Your task to perform on an android device: Open eBay Image 0: 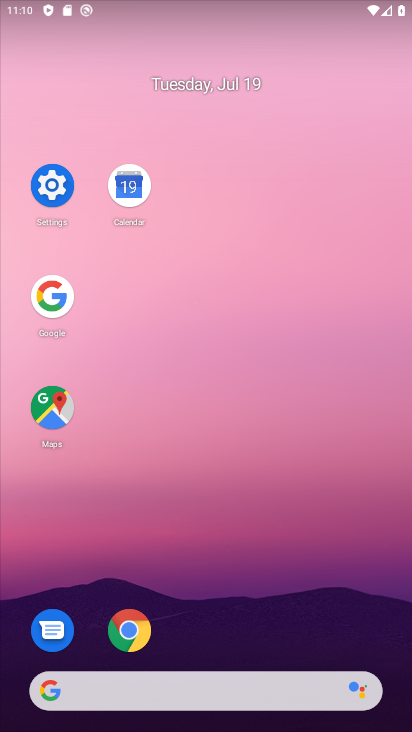
Step 0: click (117, 626)
Your task to perform on an android device: Open eBay Image 1: 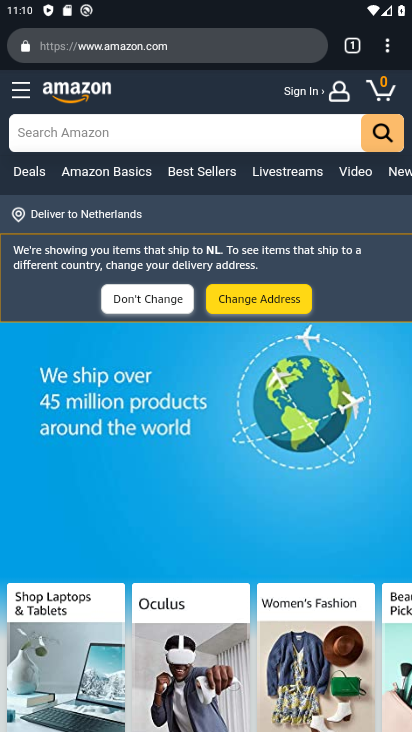
Step 1: click (347, 48)
Your task to perform on an android device: Open eBay Image 2: 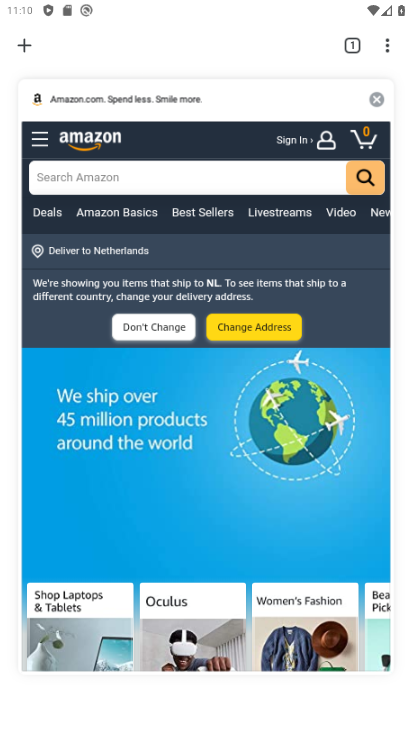
Step 2: click (34, 38)
Your task to perform on an android device: Open eBay Image 3: 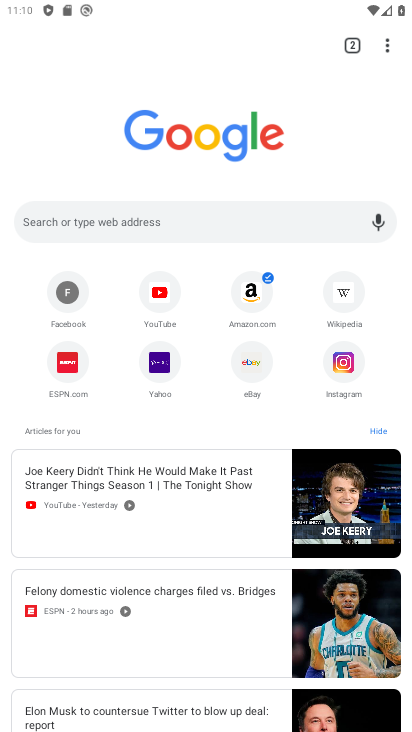
Step 3: click (258, 358)
Your task to perform on an android device: Open eBay Image 4: 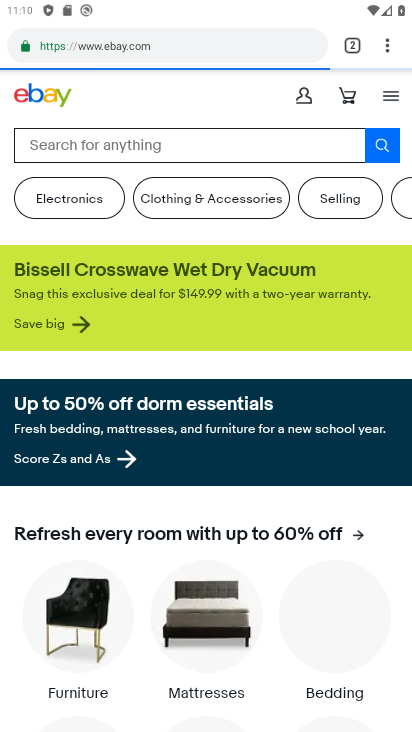
Step 4: task complete